Your task to perform on an android device: Go to Google maps Image 0: 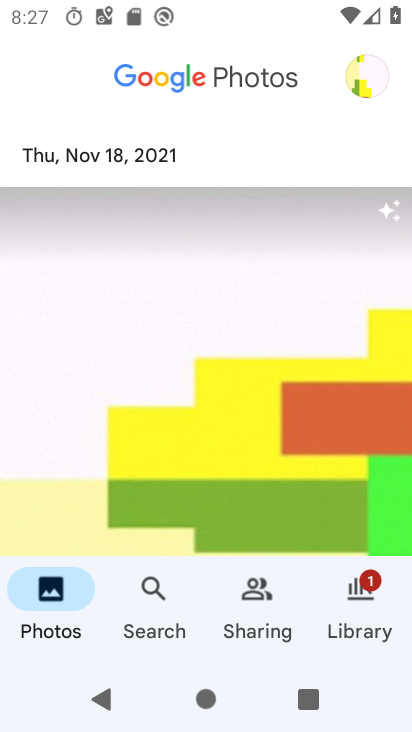
Step 0: press home button
Your task to perform on an android device: Go to Google maps Image 1: 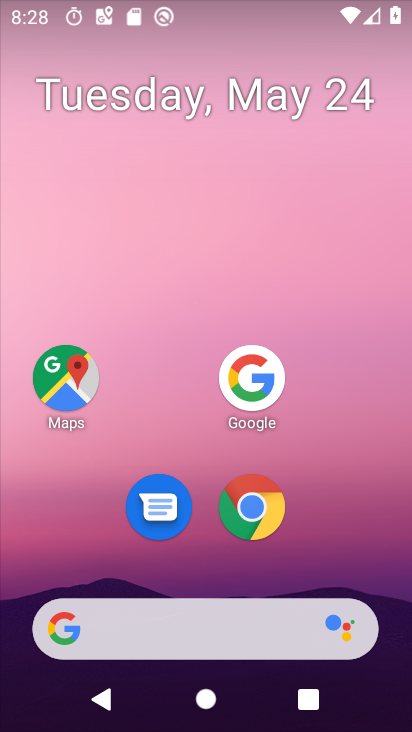
Step 1: click (70, 391)
Your task to perform on an android device: Go to Google maps Image 2: 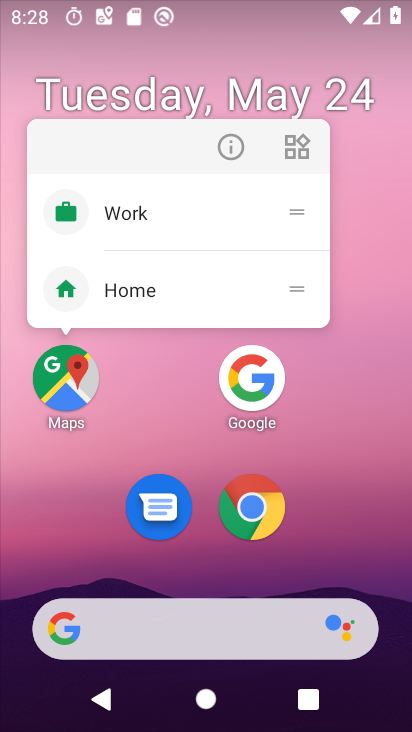
Step 2: click (59, 405)
Your task to perform on an android device: Go to Google maps Image 3: 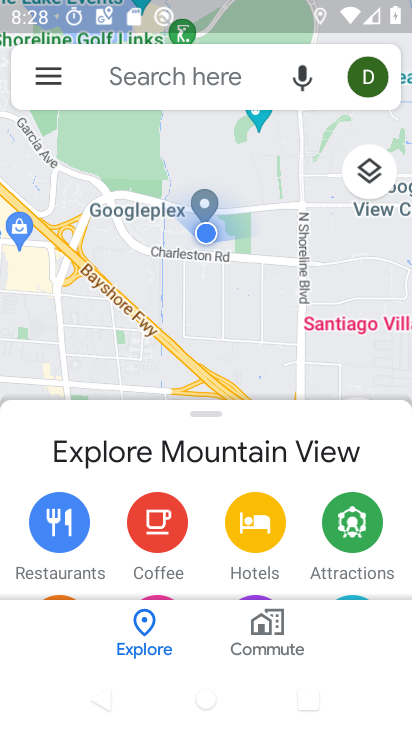
Step 3: task complete